Your task to perform on an android device: turn on location history Image 0: 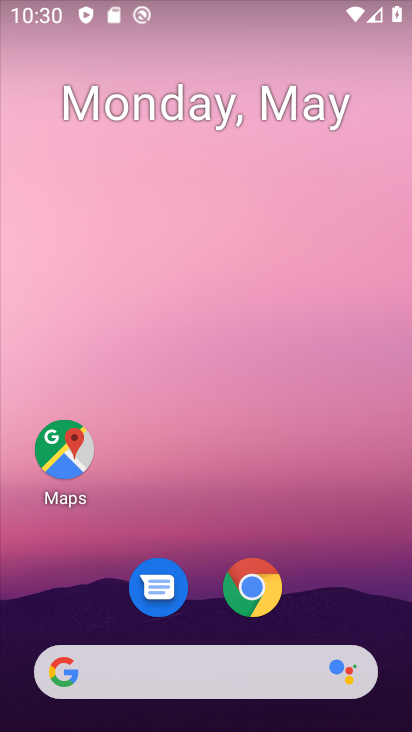
Step 0: drag from (204, 641) to (205, 66)
Your task to perform on an android device: turn on location history Image 1: 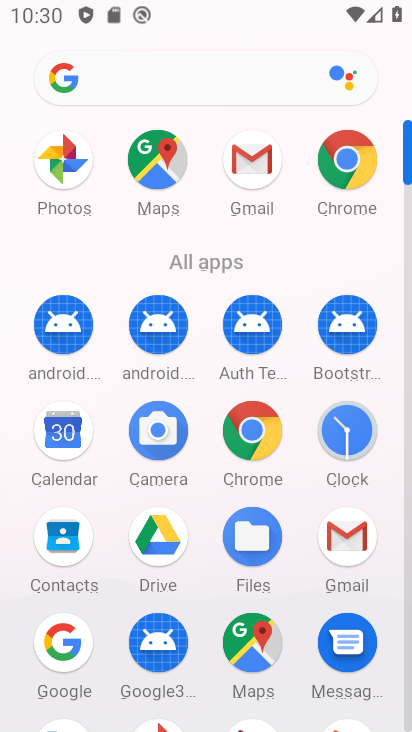
Step 1: drag from (194, 576) to (164, 184)
Your task to perform on an android device: turn on location history Image 2: 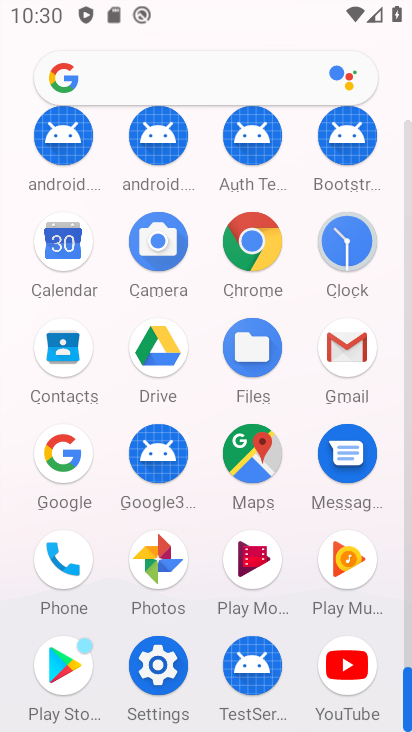
Step 2: click (145, 678)
Your task to perform on an android device: turn on location history Image 3: 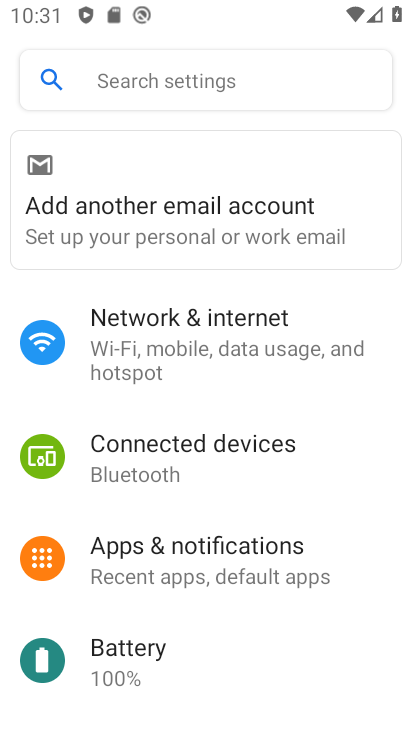
Step 3: drag from (281, 622) to (280, 178)
Your task to perform on an android device: turn on location history Image 4: 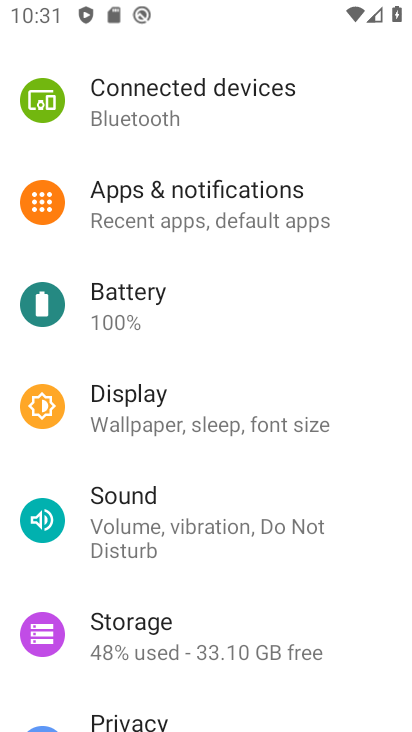
Step 4: drag from (194, 358) to (194, 122)
Your task to perform on an android device: turn on location history Image 5: 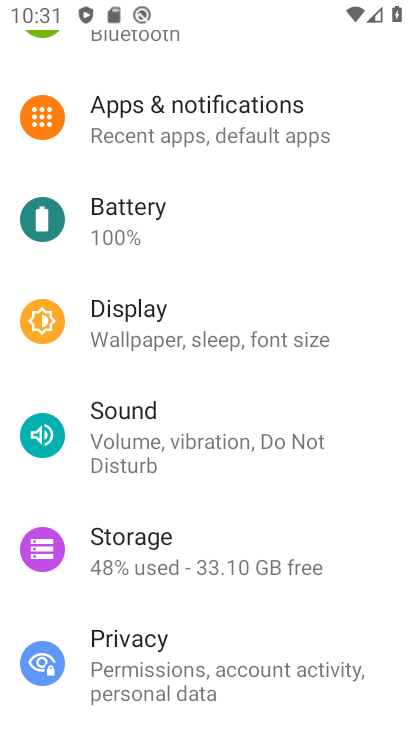
Step 5: drag from (175, 648) to (175, 125)
Your task to perform on an android device: turn on location history Image 6: 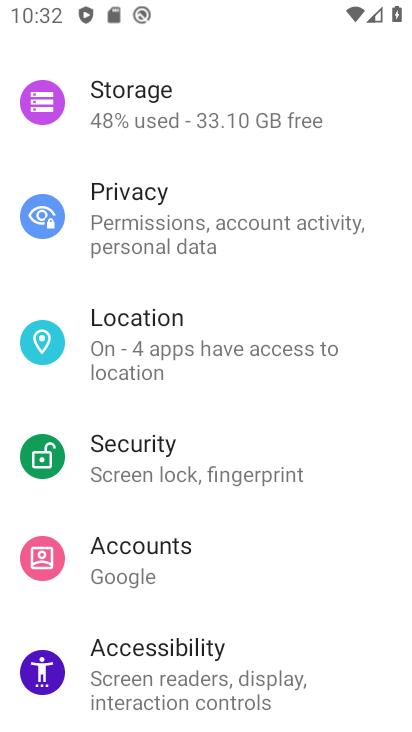
Step 6: click (93, 321)
Your task to perform on an android device: turn on location history Image 7: 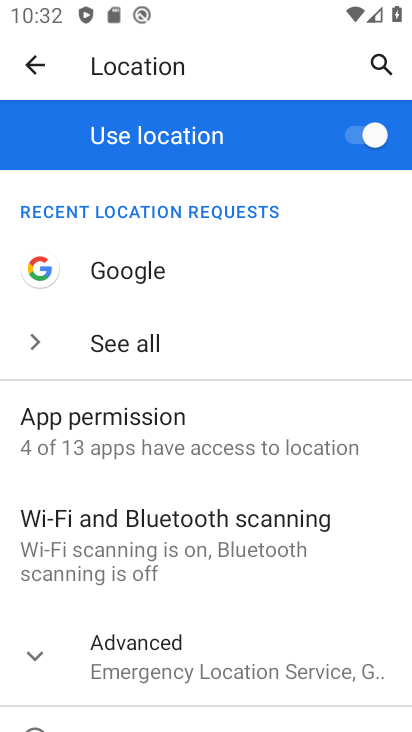
Step 7: click (239, 652)
Your task to perform on an android device: turn on location history Image 8: 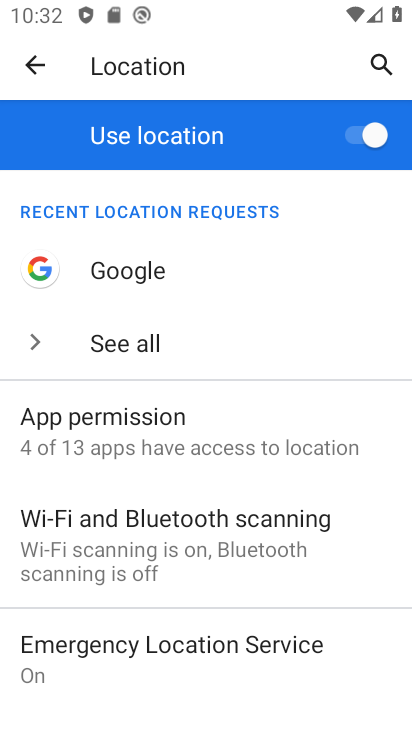
Step 8: drag from (191, 498) to (152, 78)
Your task to perform on an android device: turn on location history Image 9: 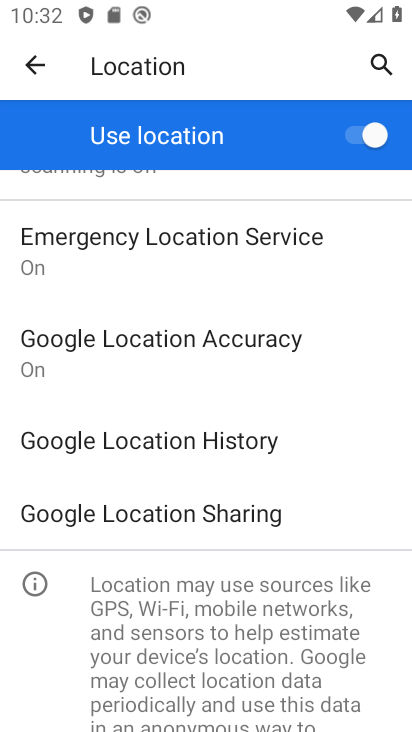
Step 9: click (176, 439)
Your task to perform on an android device: turn on location history Image 10: 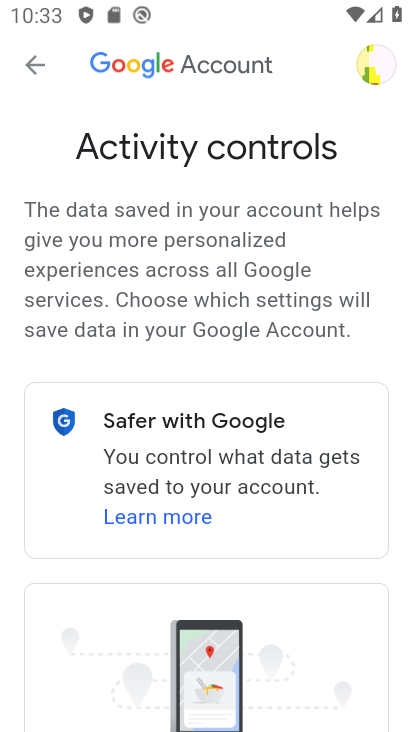
Step 10: task complete